Your task to perform on an android device: Open Chrome and go to the settings page Image 0: 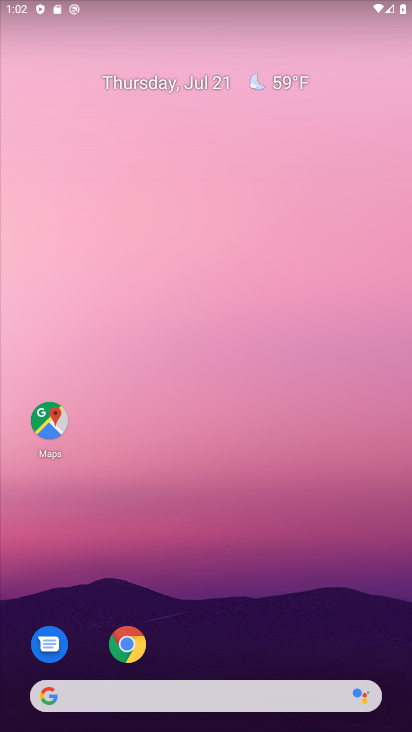
Step 0: click (130, 645)
Your task to perform on an android device: Open Chrome and go to the settings page Image 1: 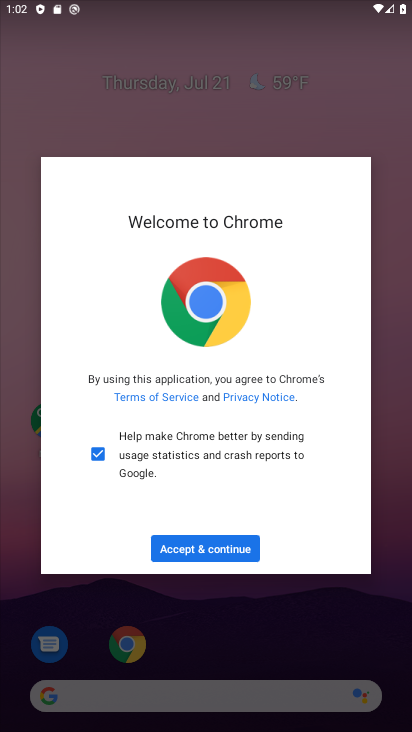
Step 1: click (216, 550)
Your task to perform on an android device: Open Chrome and go to the settings page Image 2: 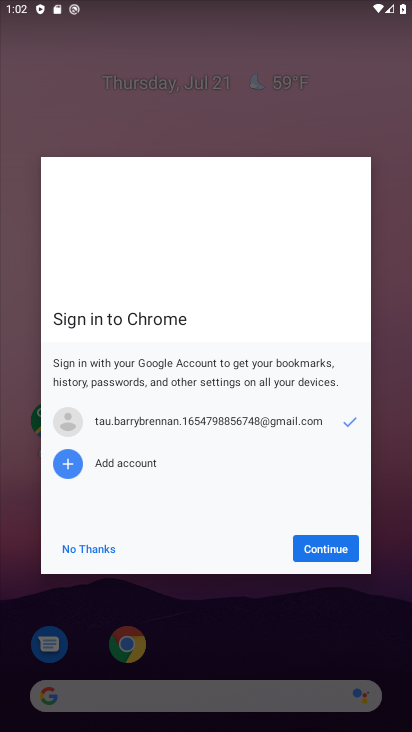
Step 2: click (324, 545)
Your task to perform on an android device: Open Chrome and go to the settings page Image 3: 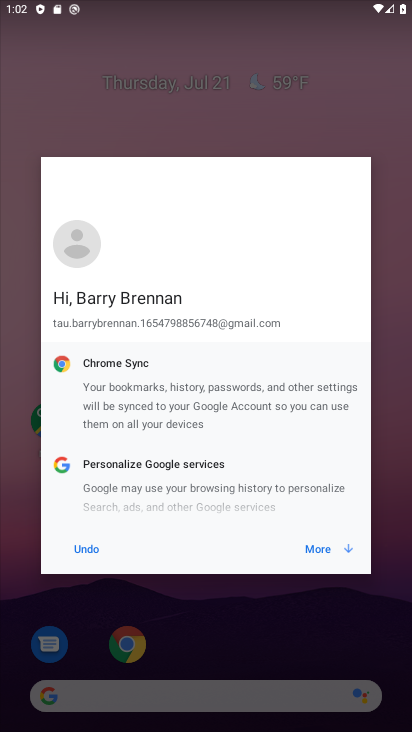
Step 3: click (316, 549)
Your task to perform on an android device: Open Chrome and go to the settings page Image 4: 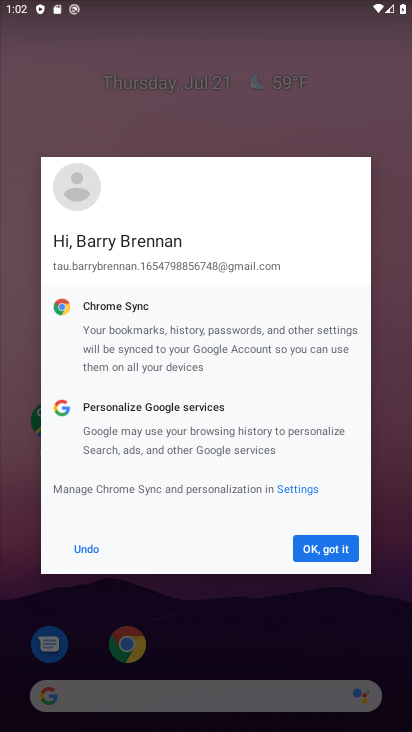
Step 4: click (318, 546)
Your task to perform on an android device: Open Chrome and go to the settings page Image 5: 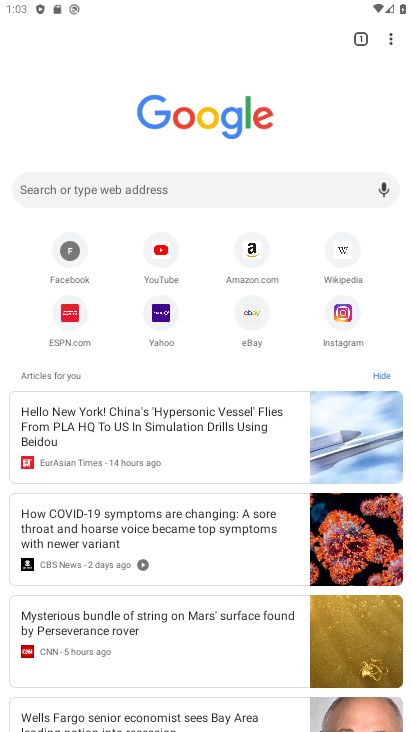
Step 5: click (390, 39)
Your task to perform on an android device: Open Chrome and go to the settings page Image 6: 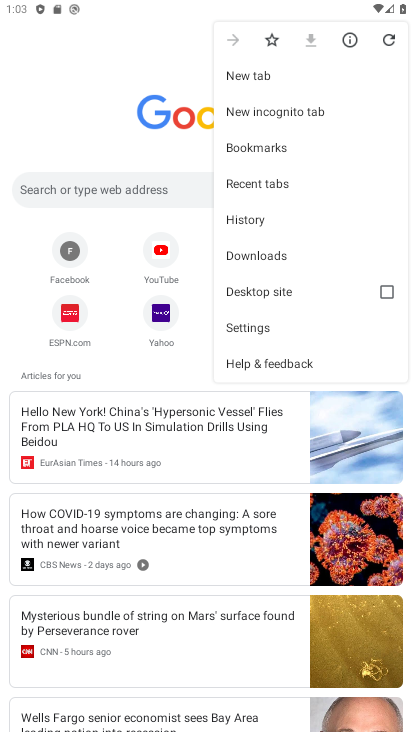
Step 6: click (251, 326)
Your task to perform on an android device: Open Chrome and go to the settings page Image 7: 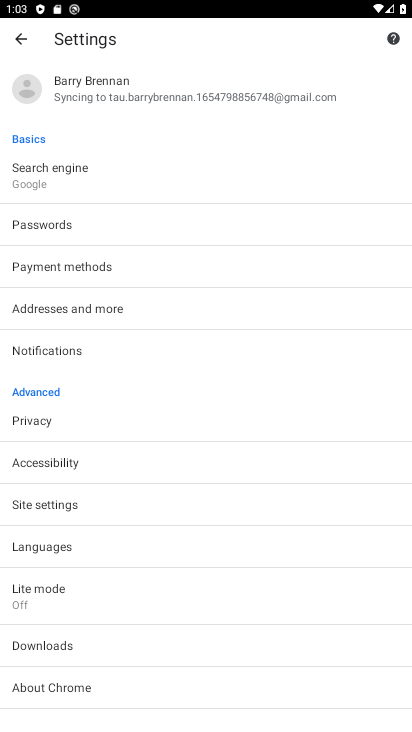
Step 7: task complete